Your task to perform on an android device: View the shopping cart on newegg. Add "usb-b" to the cart on newegg, then select checkout. Image 0: 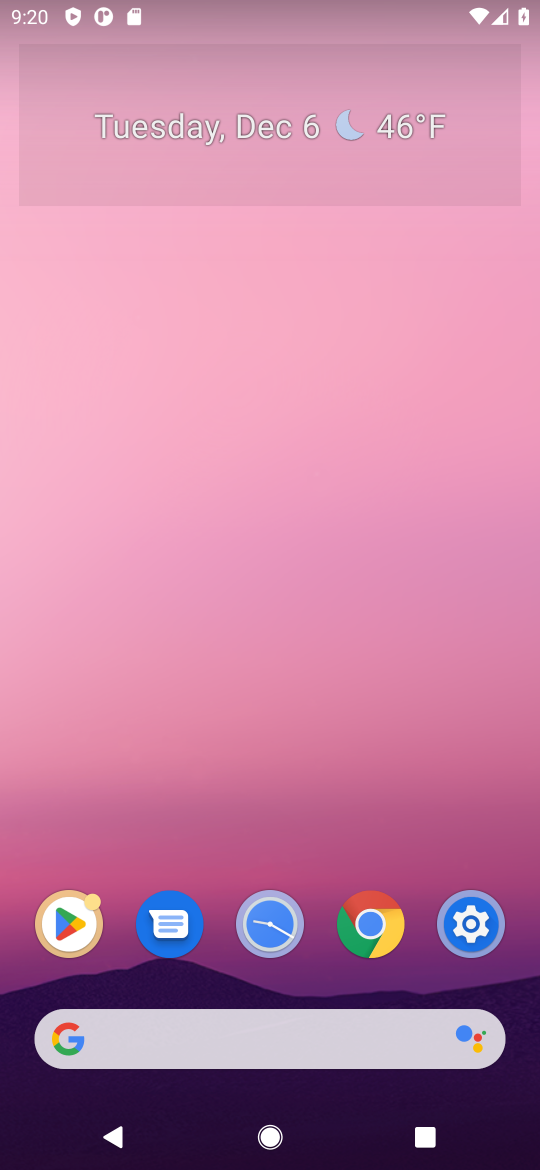
Step 0: click (125, 1044)
Your task to perform on an android device: View the shopping cart on newegg. Add "usb-b" to the cart on newegg, then select checkout. Image 1: 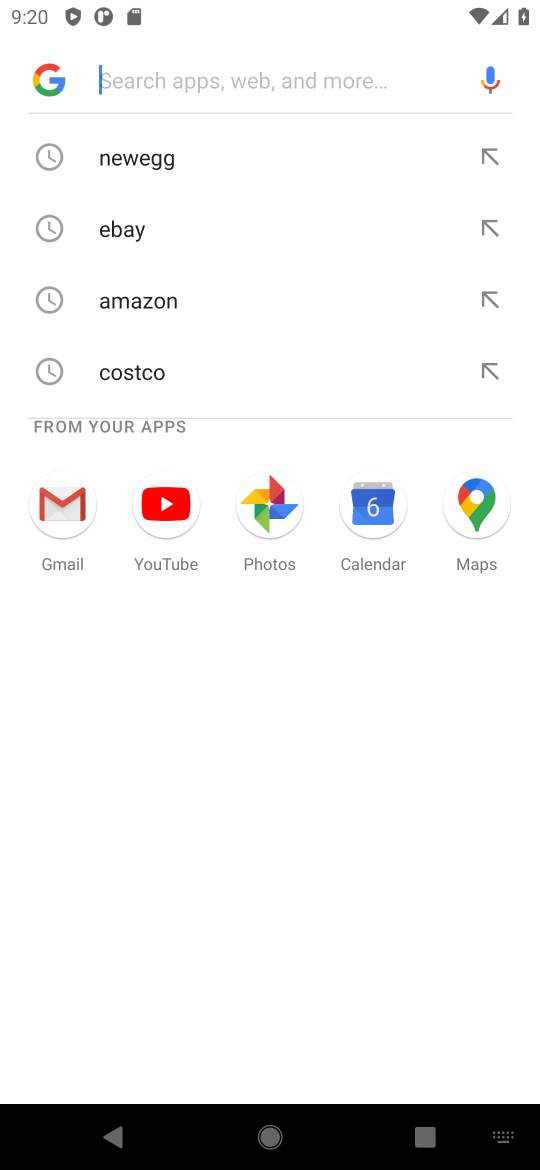
Step 1: click (197, 153)
Your task to perform on an android device: View the shopping cart on newegg. Add "usb-b" to the cart on newegg, then select checkout. Image 2: 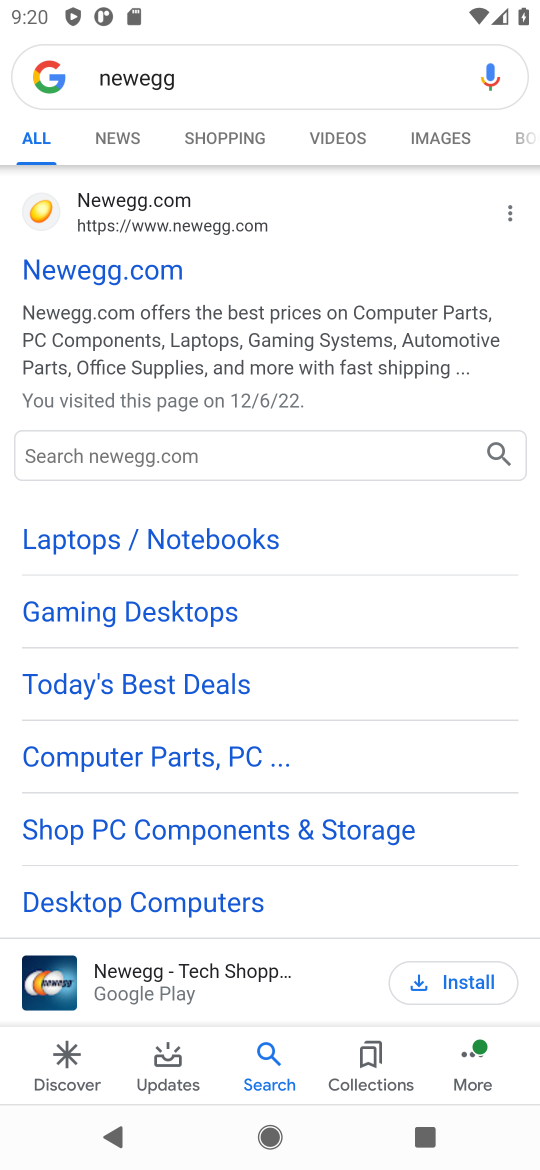
Step 2: click (146, 245)
Your task to perform on an android device: View the shopping cart on newegg. Add "usb-b" to the cart on newegg, then select checkout. Image 3: 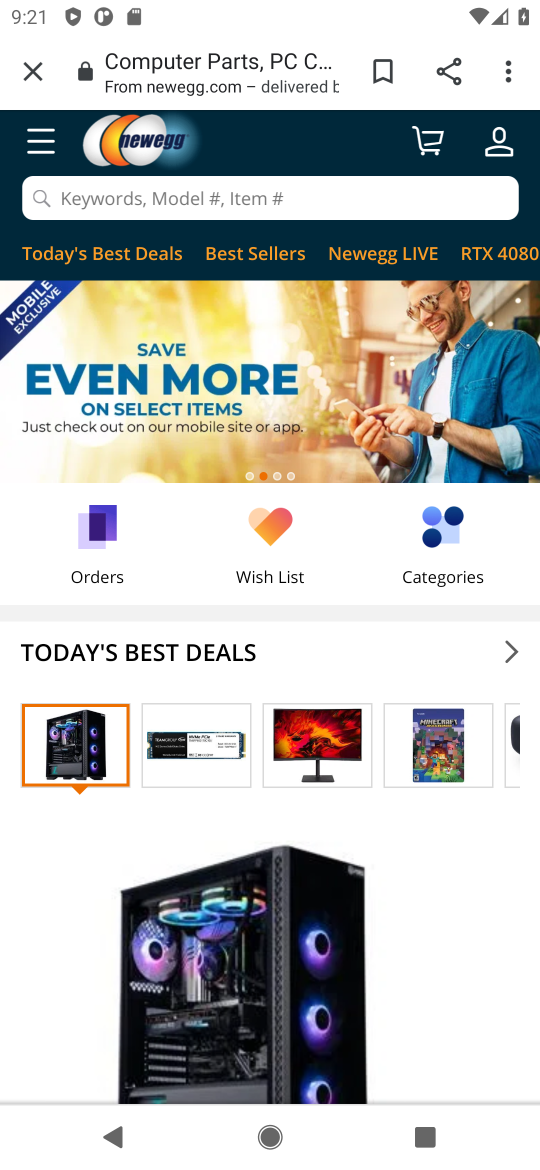
Step 3: click (182, 207)
Your task to perform on an android device: View the shopping cart on newegg. Add "usb-b" to the cart on newegg, then select checkout. Image 4: 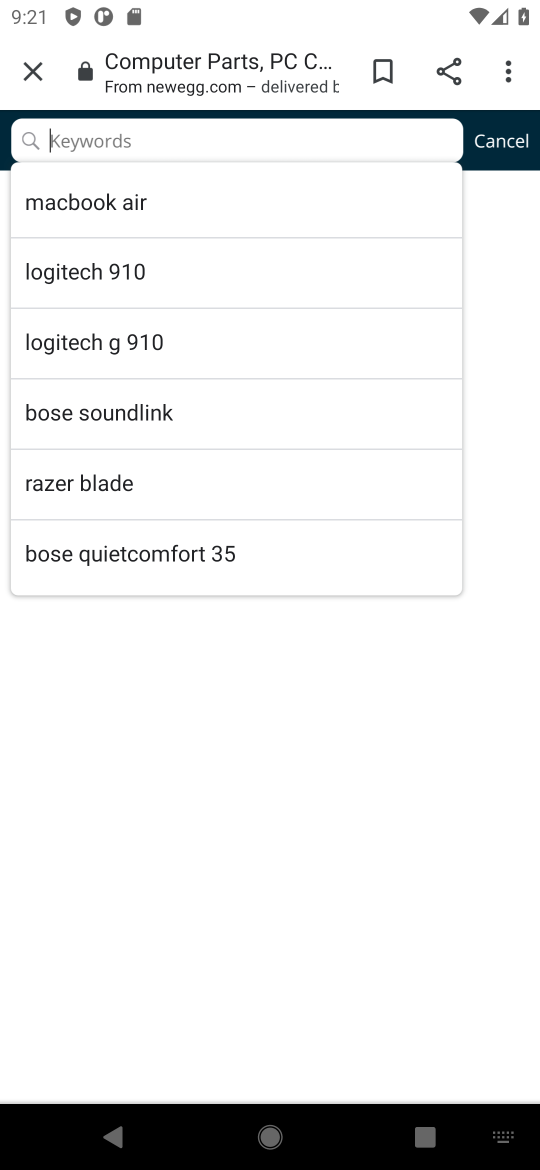
Step 4: type "usb-b"
Your task to perform on an android device: View the shopping cart on newegg. Add "usb-b" to the cart on newegg, then select checkout. Image 5: 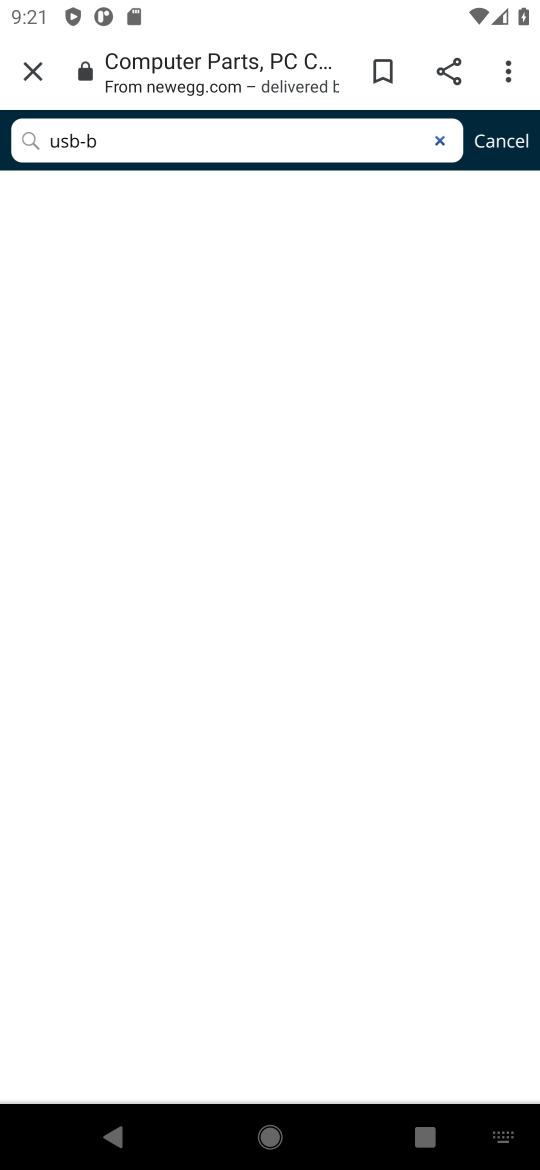
Step 5: task complete